Your task to perform on an android device: Add "usb-c to usb-a" to the cart on target.com Image 0: 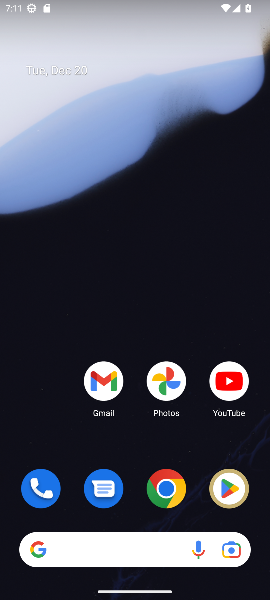
Step 0: press home button
Your task to perform on an android device: Add "usb-c to usb-a" to the cart on target.com Image 1: 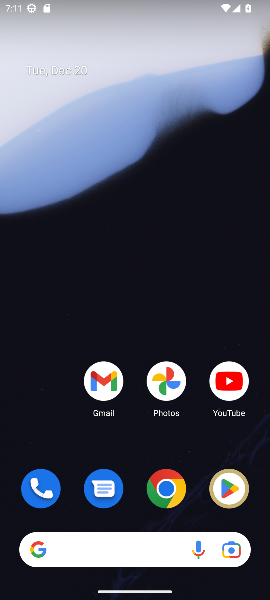
Step 1: drag from (66, 440) to (27, 33)
Your task to perform on an android device: Add "usb-c to usb-a" to the cart on target.com Image 2: 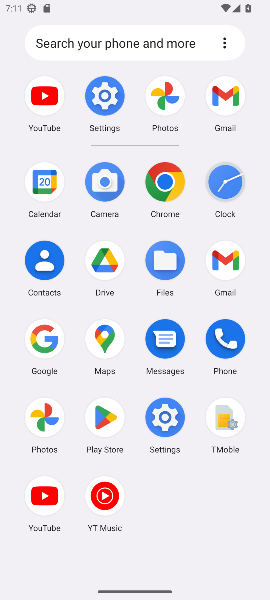
Step 2: click (34, 340)
Your task to perform on an android device: Add "usb-c to usb-a" to the cart on target.com Image 3: 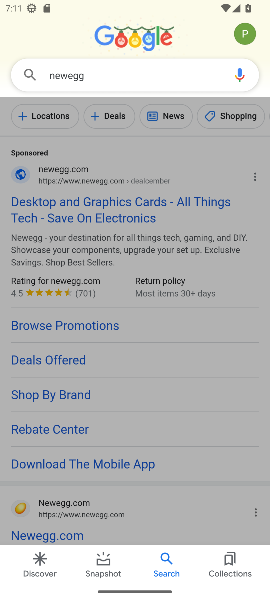
Step 3: click (119, 74)
Your task to perform on an android device: Add "usb-c to usb-a" to the cart on target.com Image 4: 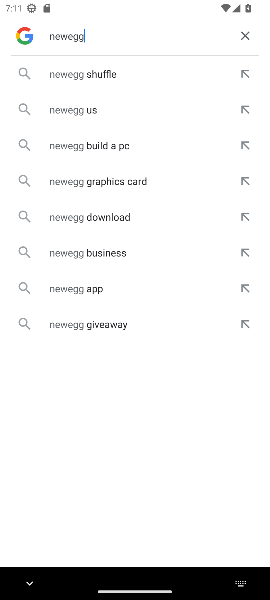
Step 4: click (244, 39)
Your task to perform on an android device: Add "usb-c to usb-a" to the cart on target.com Image 5: 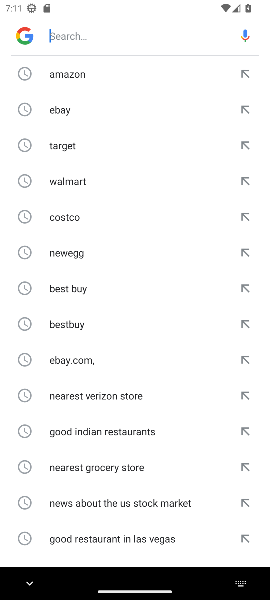
Step 5: type "target.com"
Your task to perform on an android device: Add "usb-c to usb-a" to the cart on target.com Image 6: 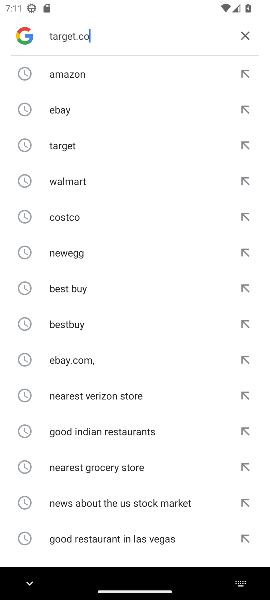
Step 6: press enter
Your task to perform on an android device: Add "usb-c to usb-a" to the cart on target.com Image 7: 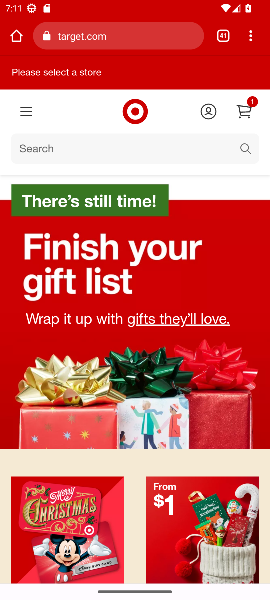
Step 7: click (37, 148)
Your task to perform on an android device: Add "usb-c to usb-a" to the cart on target.com Image 8: 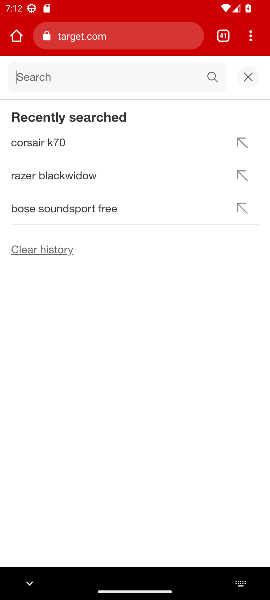
Step 8: type "usb-c to usb-a"
Your task to perform on an android device: Add "usb-c to usb-a" to the cart on target.com Image 9: 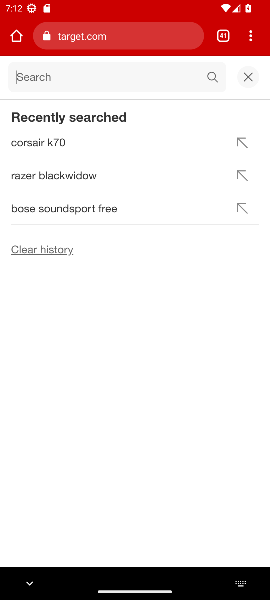
Step 9: press enter
Your task to perform on an android device: Add "usb-c to usb-a" to the cart on target.com Image 10: 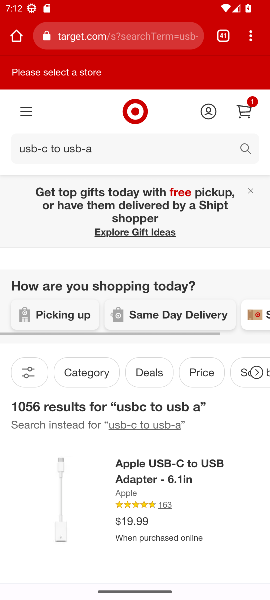
Step 10: drag from (176, 526) to (171, 276)
Your task to perform on an android device: Add "usb-c to usb-a" to the cart on target.com Image 11: 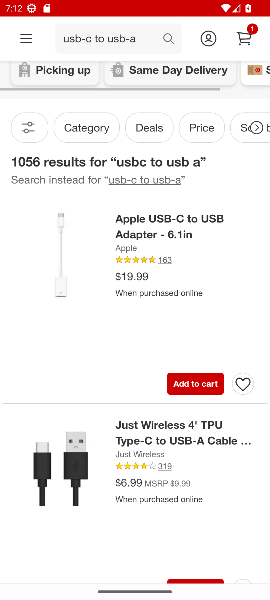
Step 11: click (172, 441)
Your task to perform on an android device: Add "usb-c to usb-a" to the cart on target.com Image 12: 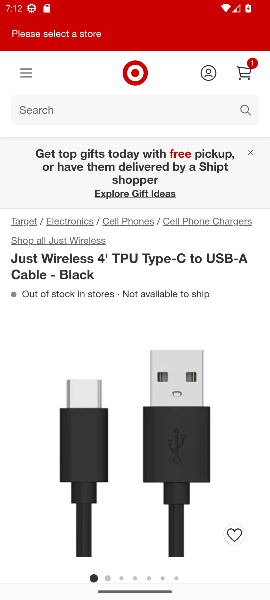
Step 12: drag from (148, 489) to (151, 161)
Your task to perform on an android device: Add "usb-c to usb-a" to the cart on target.com Image 13: 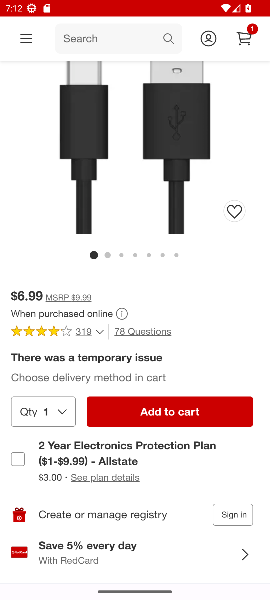
Step 13: click (149, 416)
Your task to perform on an android device: Add "usb-c to usb-a" to the cart on target.com Image 14: 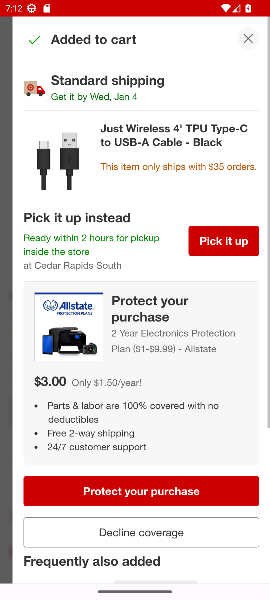
Step 14: task complete